Your task to perform on an android device: Open Android settings Image 0: 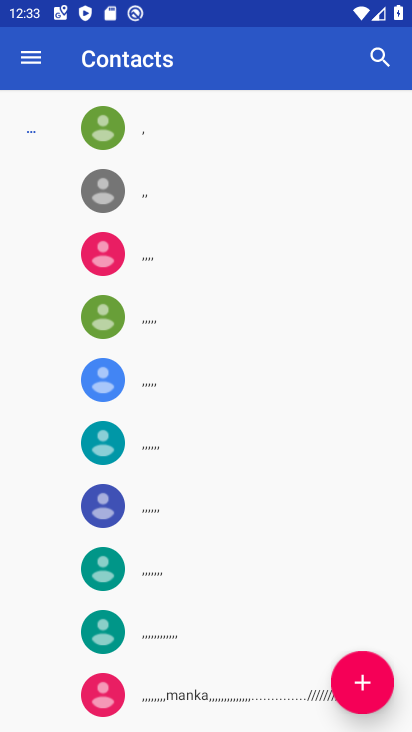
Step 0: press home button
Your task to perform on an android device: Open Android settings Image 1: 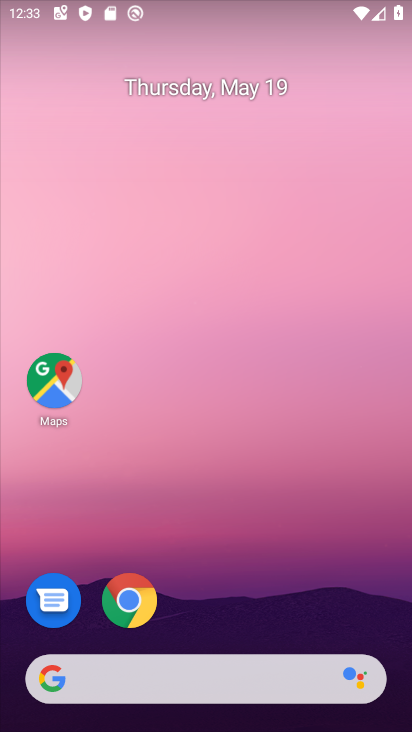
Step 1: drag from (274, 606) to (207, 213)
Your task to perform on an android device: Open Android settings Image 2: 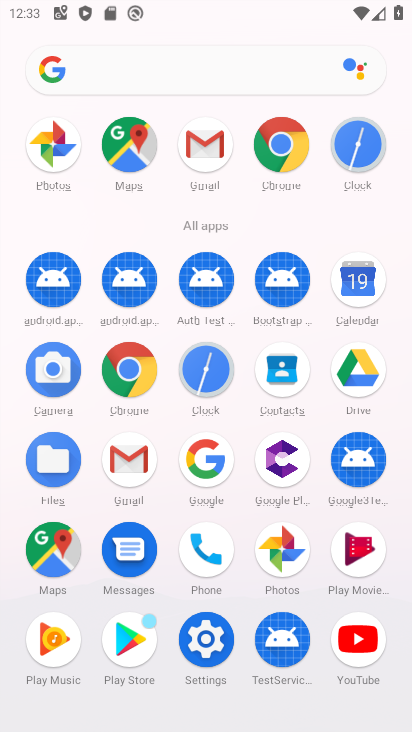
Step 2: click (225, 665)
Your task to perform on an android device: Open Android settings Image 3: 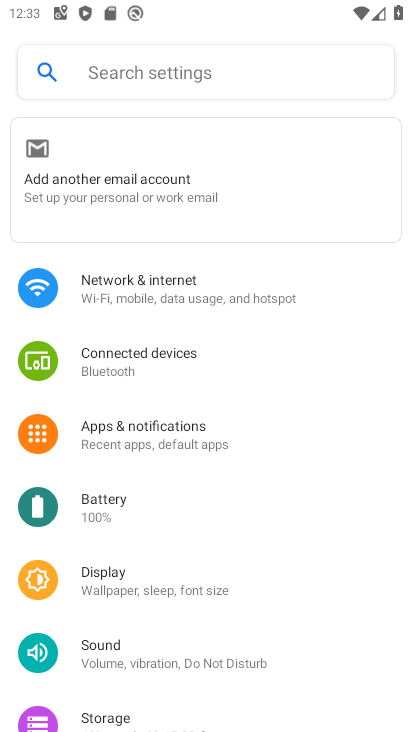
Step 3: task complete